Your task to perform on an android device: turn on wifi Image 0: 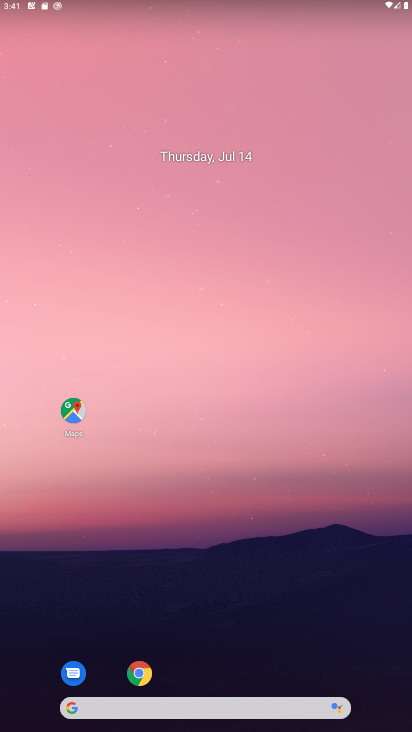
Step 0: press home button
Your task to perform on an android device: turn on wifi Image 1: 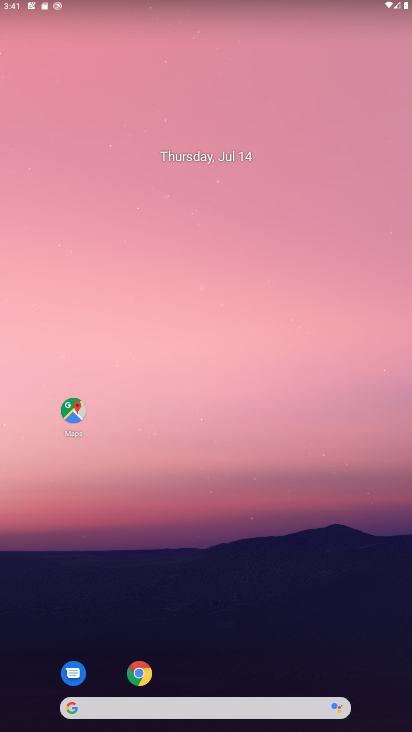
Step 1: task complete